Your task to perform on an android device: Is it going to rain this weekend? Image 0: 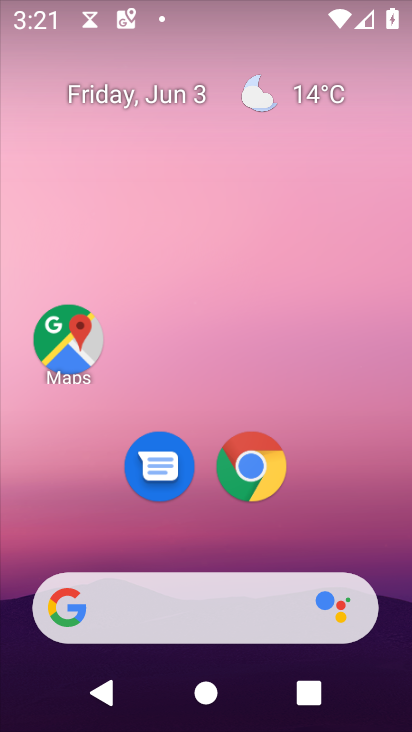
Step 0: click (215, 609)
Your task to perform on an android device: Is it going to rain this weekend? Image 1: 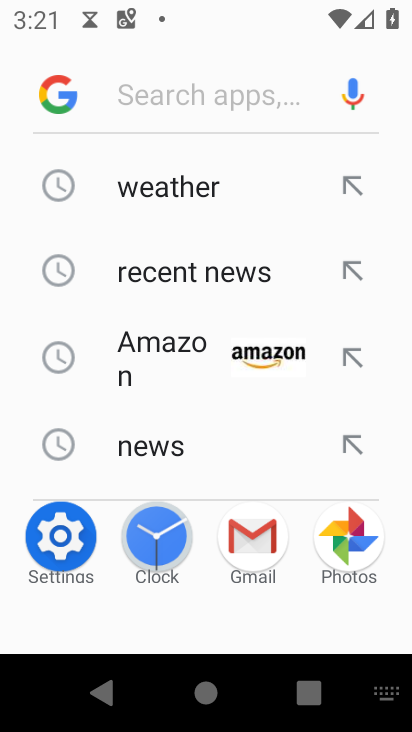
Step 1: click (196, 198)
Your task to perform on an android device: Is it going to rain this weekend? Image 2: 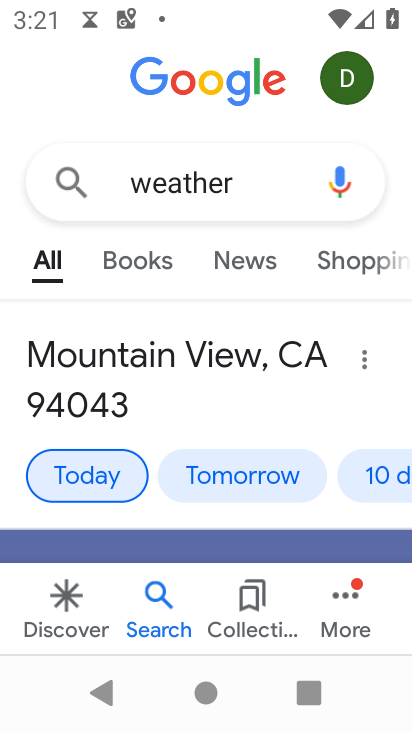
Step 2: click (372, 468)
Your task to perform on an android device: Is it going to rain this weekend? Image 3: 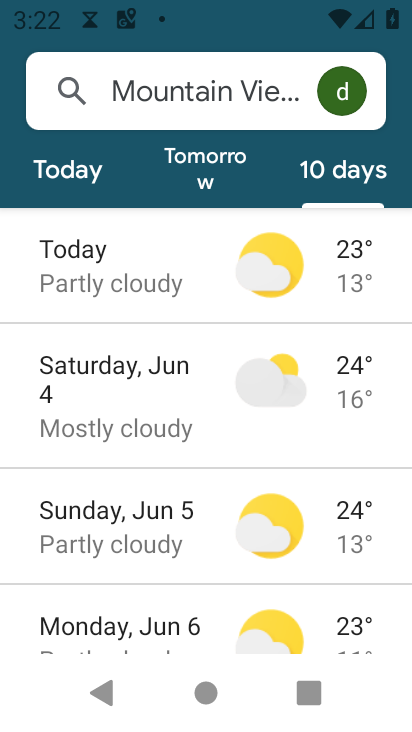
Step 3: task complete